Your task to perform on an android device: Open calendar and show me the fourth week of next month Image 0: 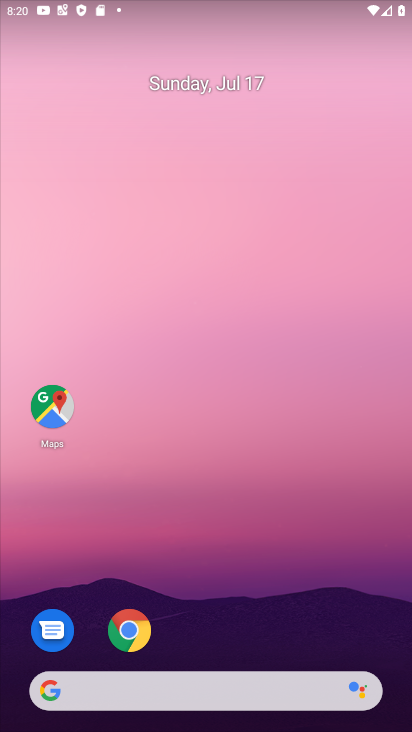
Step 0: drag from (341, 618) to (349, 137)
Your task to perform on an android device: Open calendar and show me the fourth week of next month Image 1: 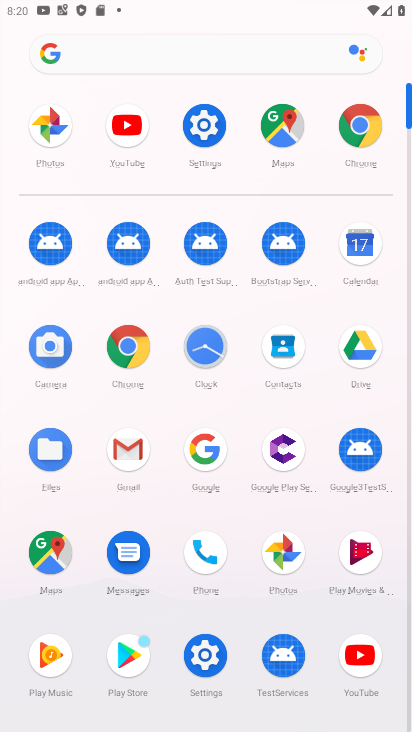
Step 1: click (361, 253)
Your task to perform on an android device: Open calendar and show me the fourth week of next month Image 2: 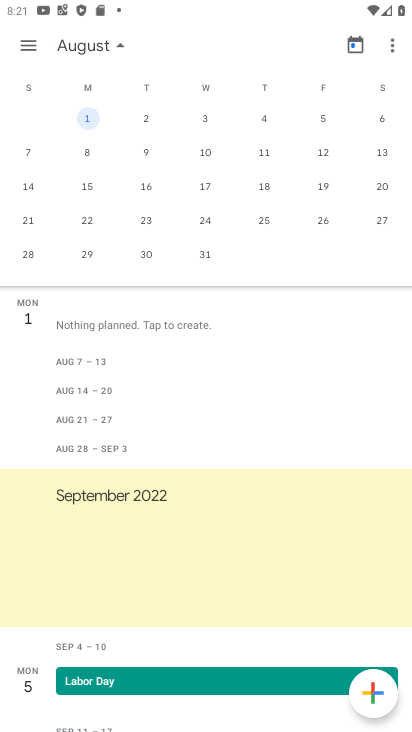
Step 2: click (81, 219)
Your task to perform on an android device: Open calendar and show me the fourth week of next month Image 3: 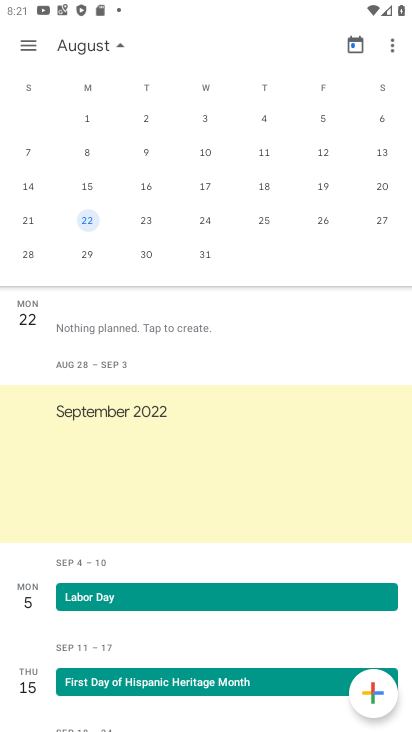
Step 3: task complete